Your task to perform on an android device: change notification settings in the gmail app Image 0: 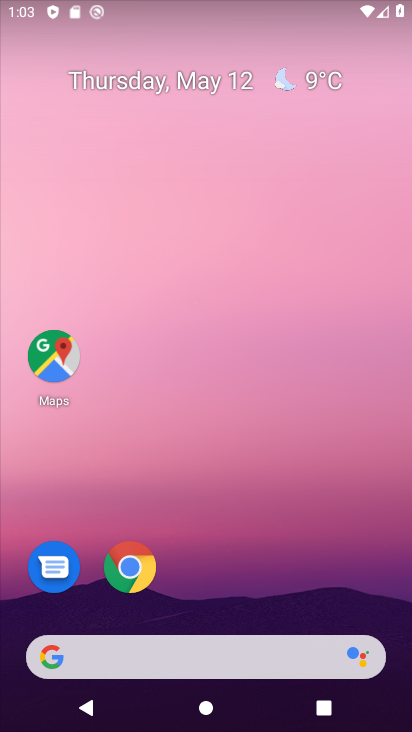
Step 0: drag from (214, 604) to (238, 24)
Your task to perform on an android device: change notification settings in the gmail app Image 1: 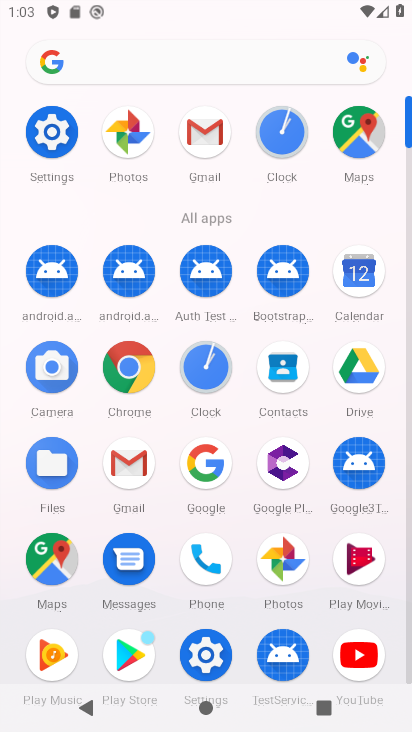
Step 1: click (128, 455)
Your task to perform on an android device: change notification settings in the gmail app Image 2: 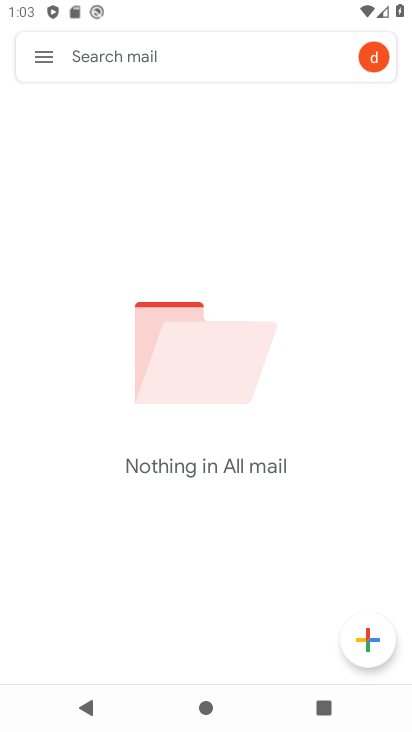
Step 2: click (36, 53)
Your task to perform on an android device: change notification settings in the gmail app Image 3: 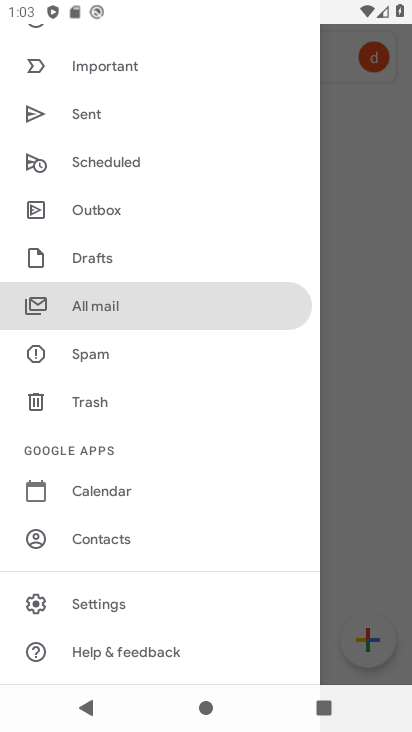
Step 3: click (135, 596)
Your task to perform on an android device: change notification settings in the gmail app Image 4: 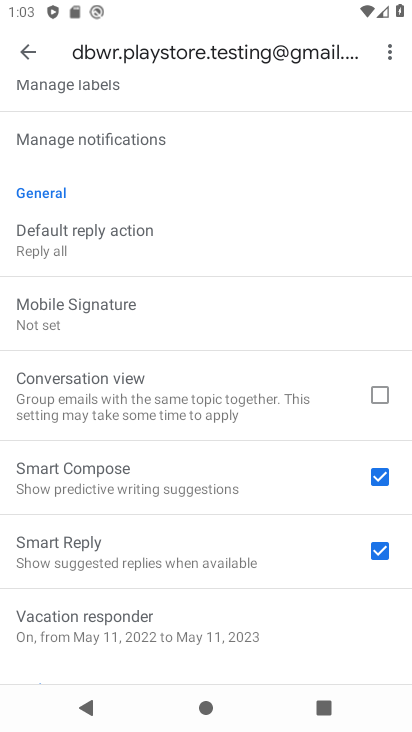
Step 4: drag from (225, 200) to (256, 605)
Your task to perform on an android device: change notification settings in the gmail app Image 5: 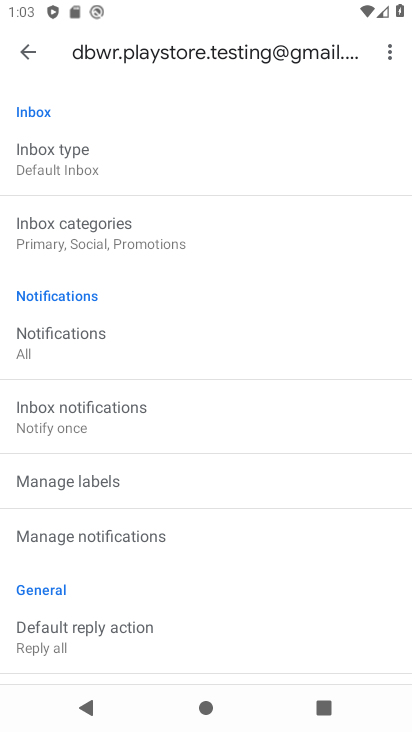
Step 5: click (29, 52)
Your task to perform on an android device: change notification settings in the gmail app Image 6: 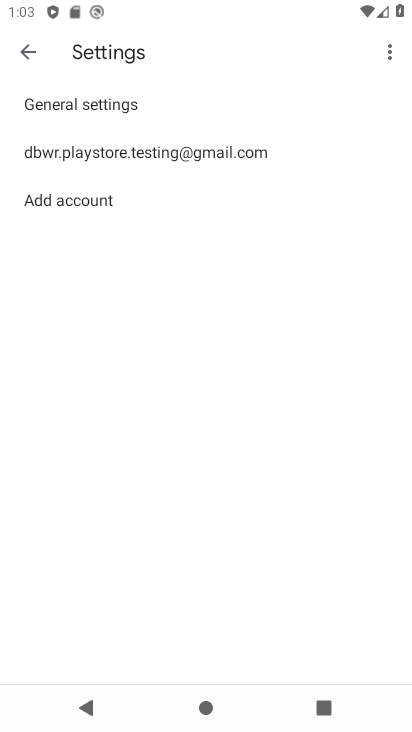
Step 6: click (147, 102)
Your task to perform on an android device: change notification settings in the gmail app Image 7: 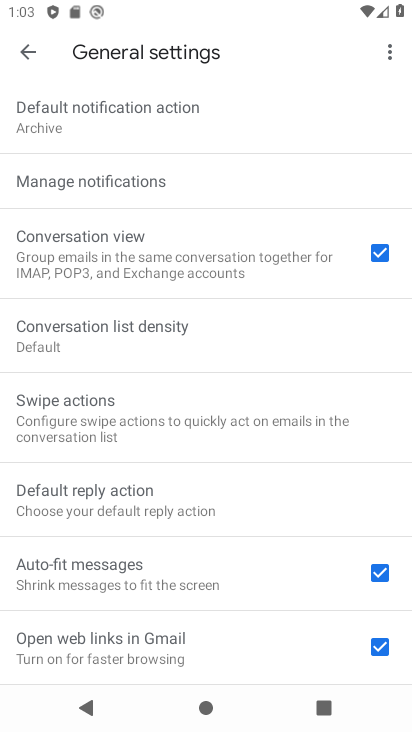
Step 7: click (174, 187)
Your task to perform on an android device: change notification settings in the gmail app Image 8: 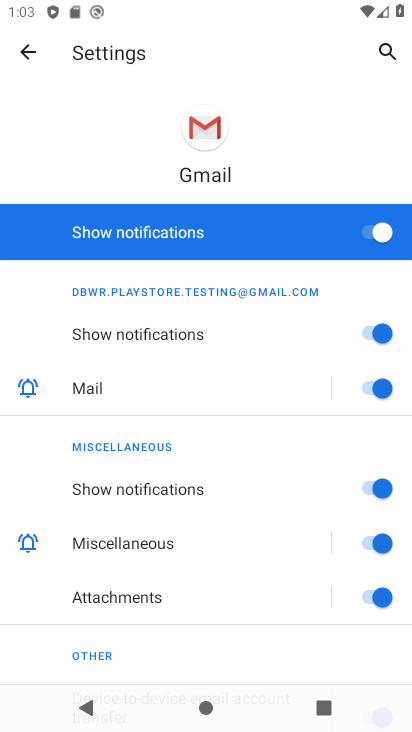
Step 8: click (371, 230)
Your task to perform on an android device: change notification settings in the gmail app Image 9: 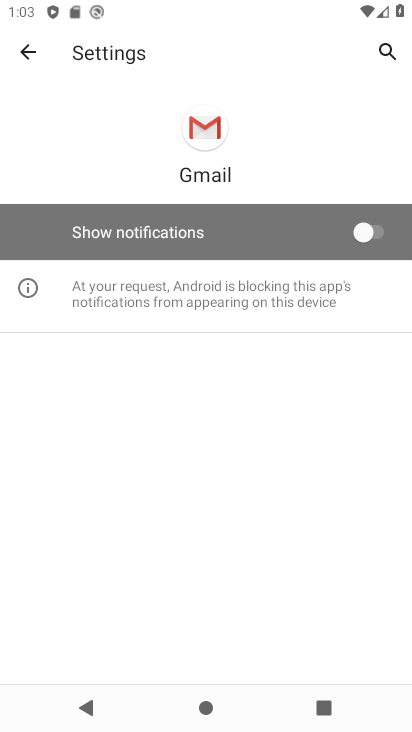
Step 9: task complete